Your task to perform on an android device: Open the Play Movies app and select the watchlist tab. Image 0: 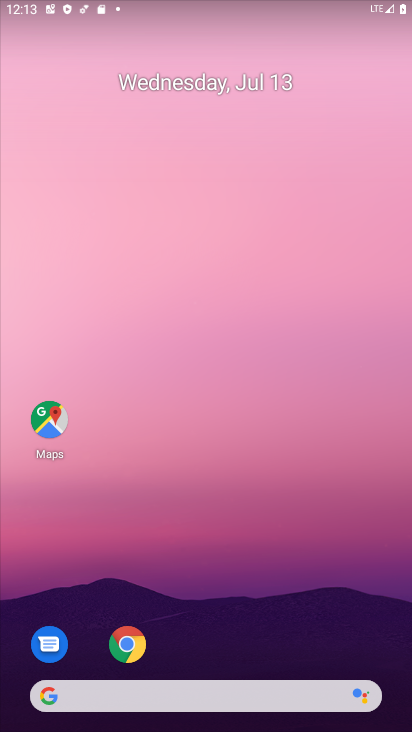
Step 0: drag from (247, 632) to (271, 83)
Your task to perform on an android device: Open the Play Movies app and select the watchlist tab. Image 1: 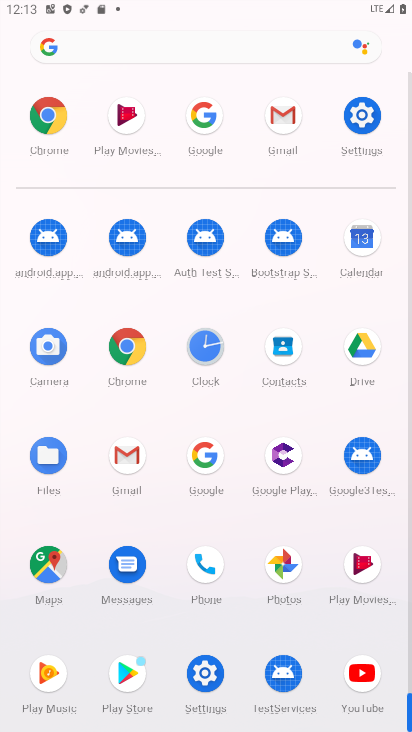
Step 1: click (360, 556)
Your task to perform on an android device: Open the Play Movies app and select the watchlist tab. Image 2: 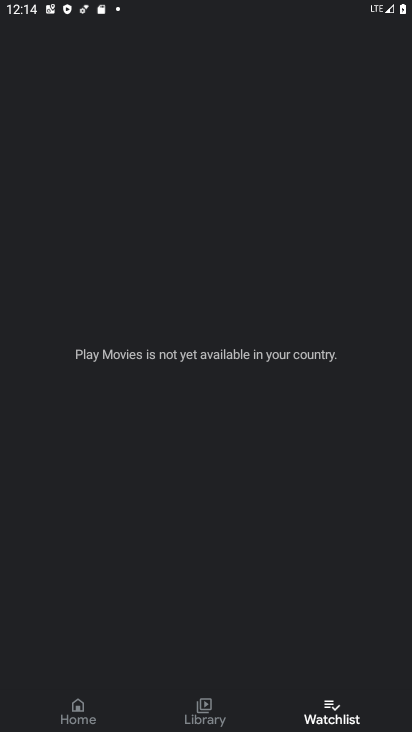
Step 2: task complete